Your task to perform on an android device: Open Google Chrome Image 0: 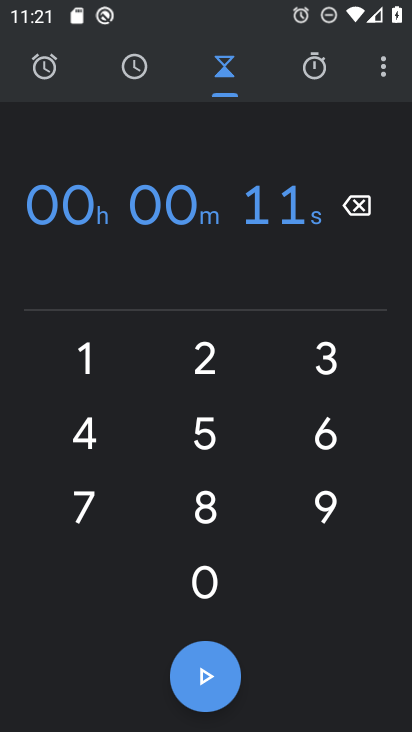
Step 0: press home button
Your task to perform on an android device: Open Google Chrome Image 1: 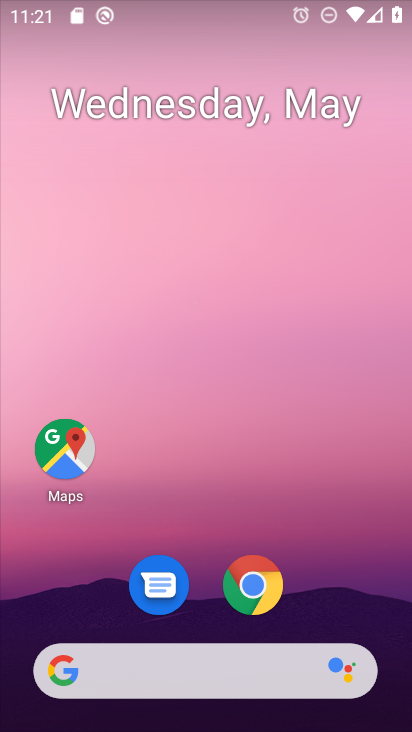
Step 1: click (271, 581)
Your task to perform on an android device: Open Google Chrome Image 2: 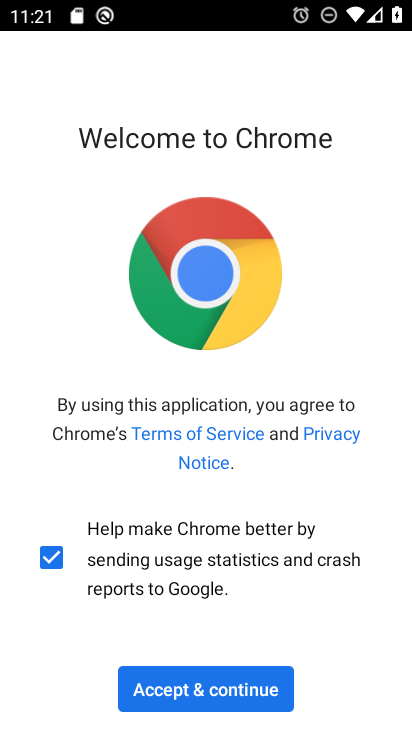
Step 2: click (259, 689)
Your task to perform on an android device: Open Google Chrome Image 3: 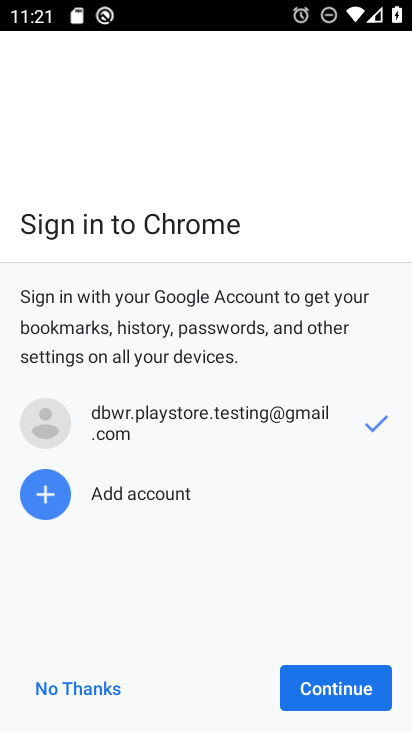
Step 3: click (331, 685)
Your task to perform on an android device: Open Google Chrome Image 4: 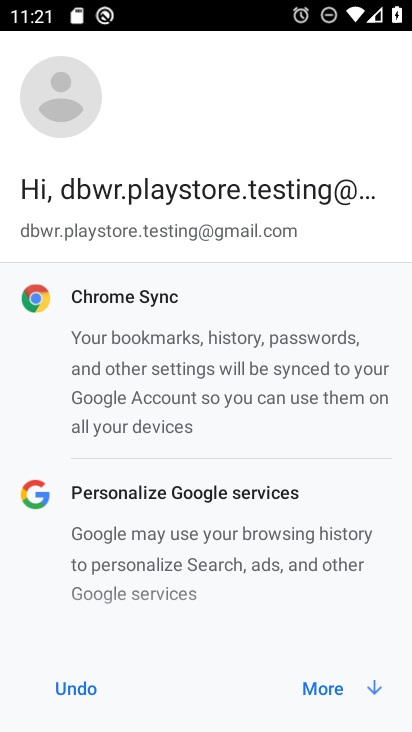
Step 4: click (344, 678)
Your task to perform on an android device: Open Google Chrome Image 5: 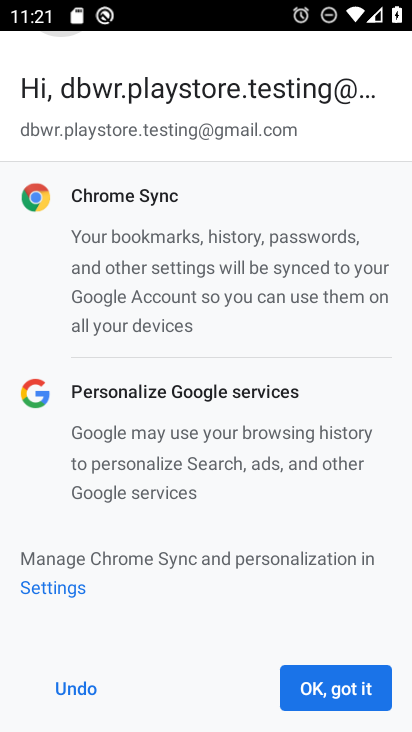
Step 5: click (344, 684)
Your task to perform on an android device: Open Google Chrome Image 6: 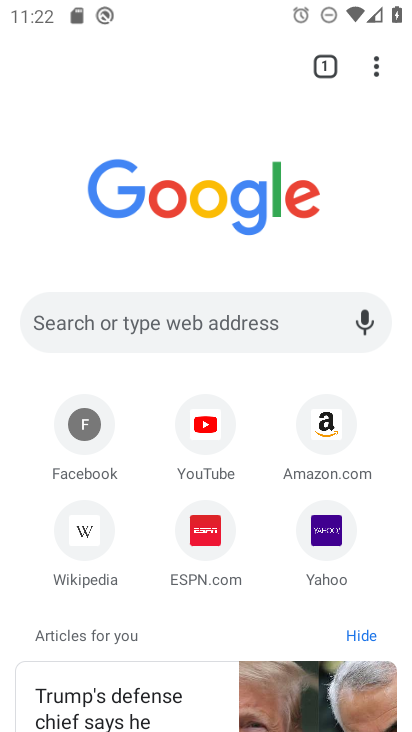
Step 6: task complete